Your task to perform on an android device: Do I have any events this weekend? Image 0: 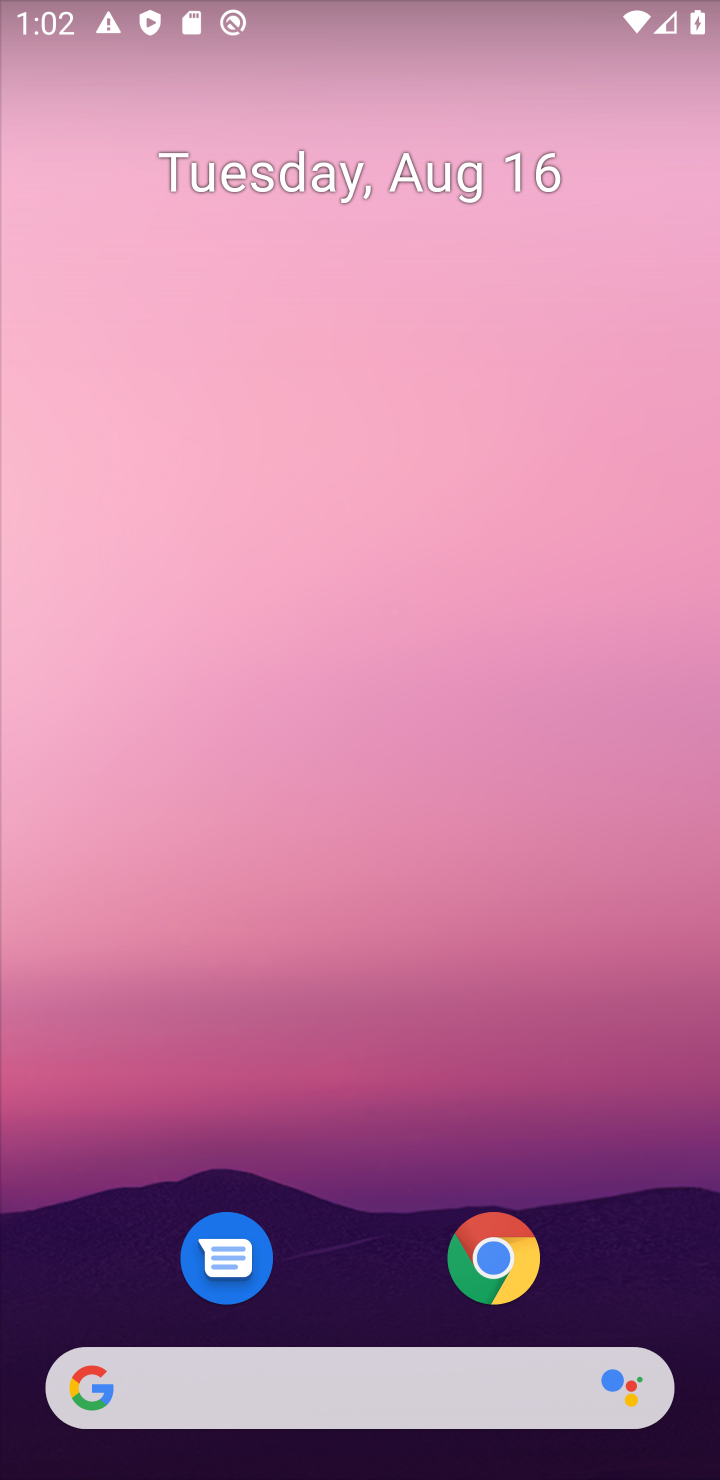
Step 0: drag from (270, 1075) to (307, 453)
Your task to perform on an android device: Do I have any events this weekend? Image 1: 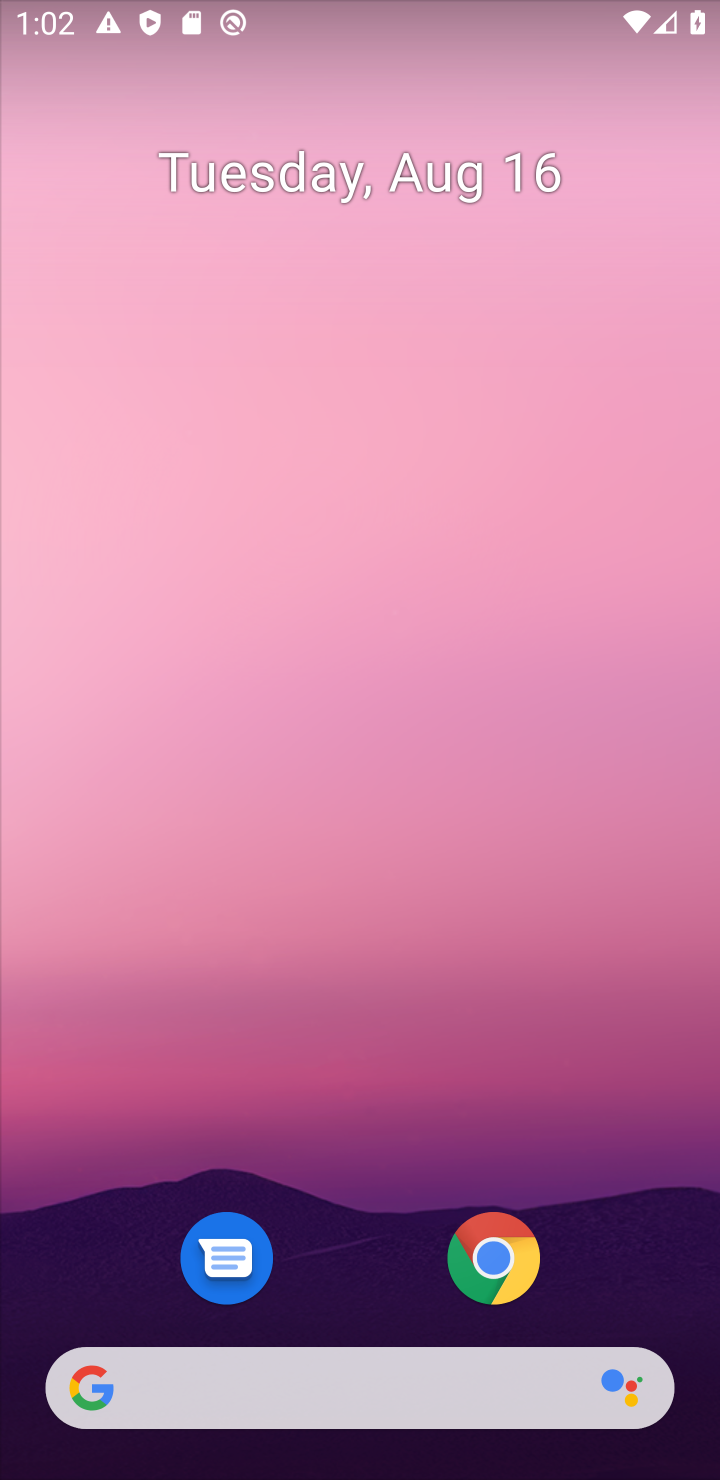
Step 1: drag from (329, 1233) to (317, 250)
Your task to perform on an android device: Do I have any events this weekend? Image 2: 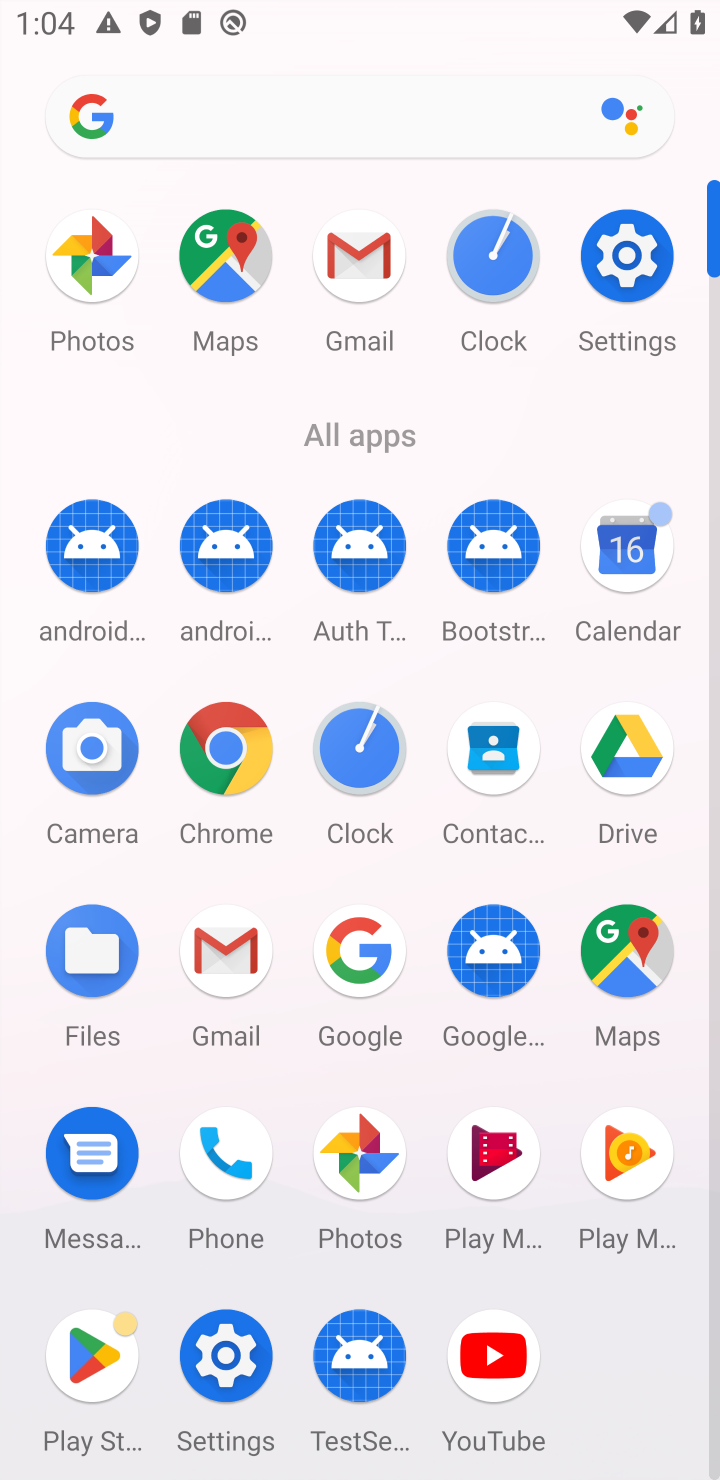
Step 2: click (621, 554)
Your task to perform on an android device: Do I have any events this weekend? Image 3: 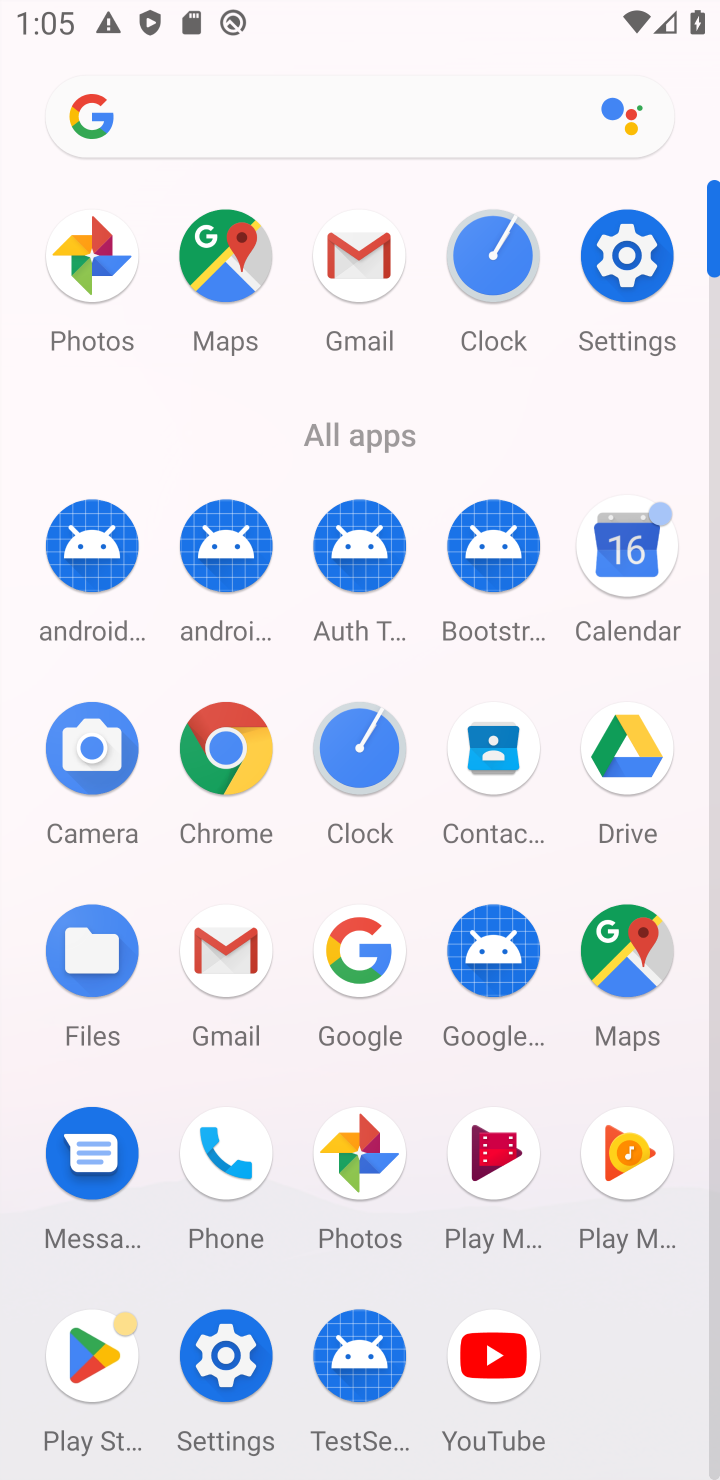
Step 3: click (643, 558)
Your task to perform on an android device: Do I have any events this weekend? Image 4: 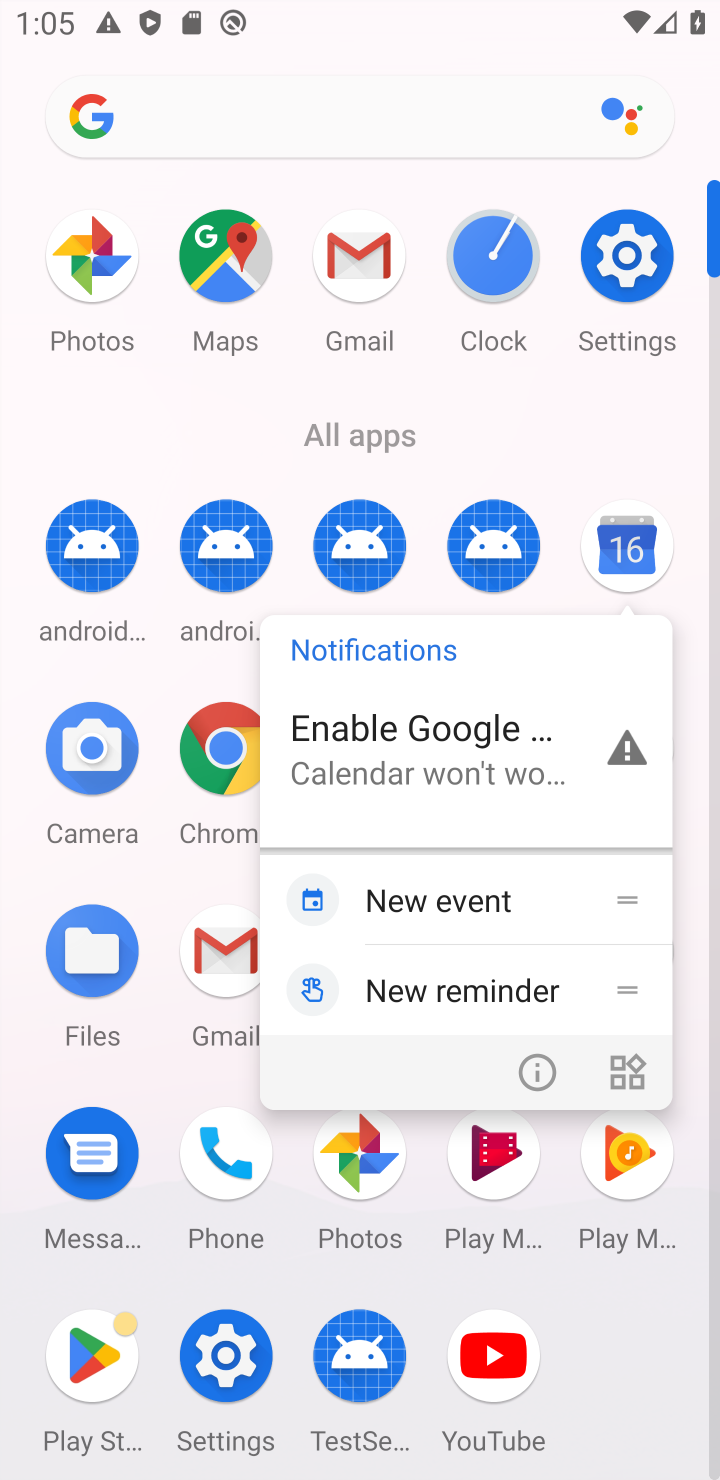
Step 4: task complete